Your task to perform on an android device: check google app version Image 0: 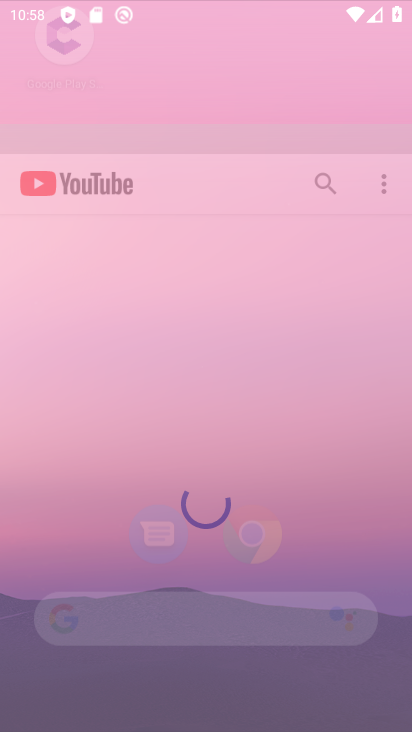
Step 0: drag from (279, 246) to (263, 183)
Your task to perform on an android device: check google app version Image 1: 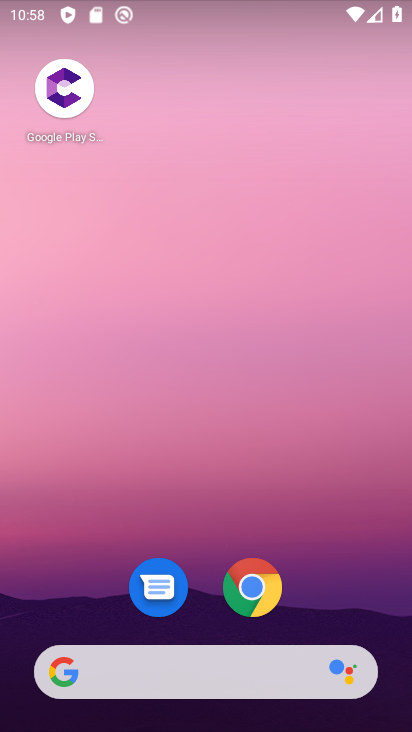
Step 1: drag from (324, 615) to (296, 143)
Your task to perform on an android device: check google app version Image 2: 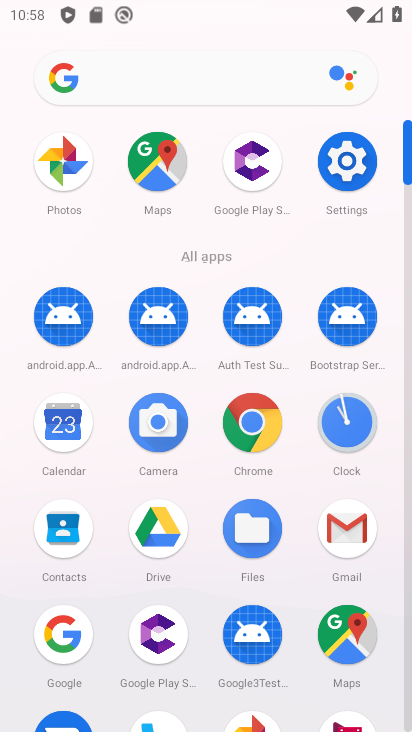
Step 2: click (268, 434)
Your task to perform on an android device: check google app version Image 3: 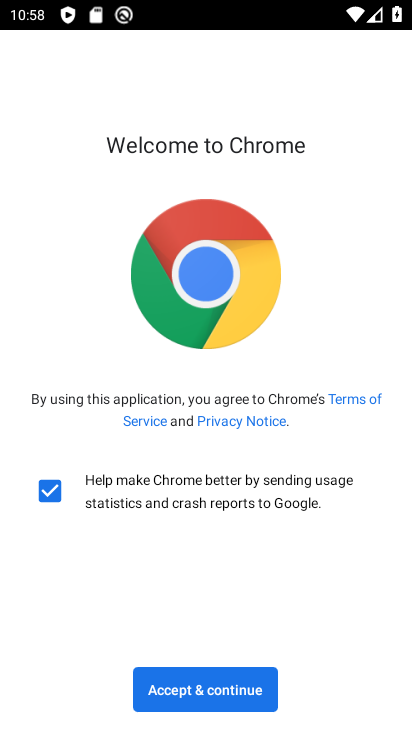
Step 3: click (179, 690)
Your task to perform on an android device: check google app version Image 4: 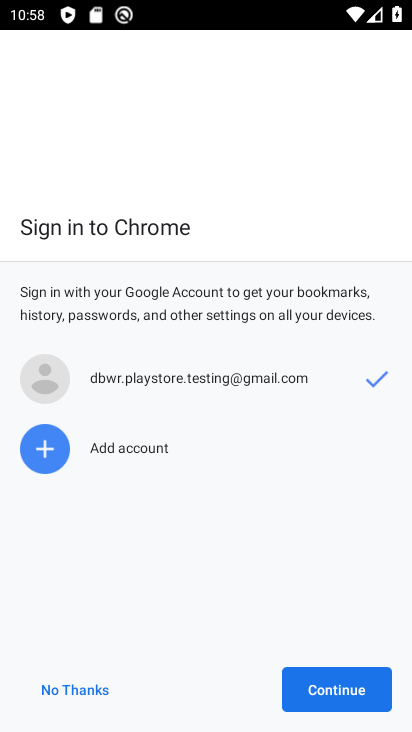
Step 4: click (314, 699)
Your task to perform on an android device: check google app version Image 5: 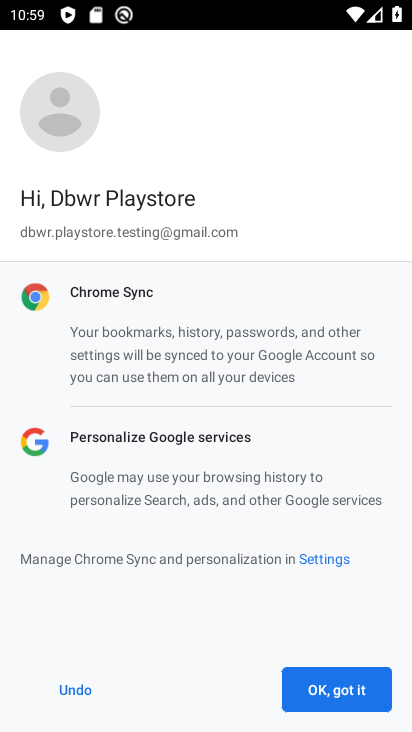
Step 5: click (314, 699)
Your task to perform on an android device: check google app version Image 6: 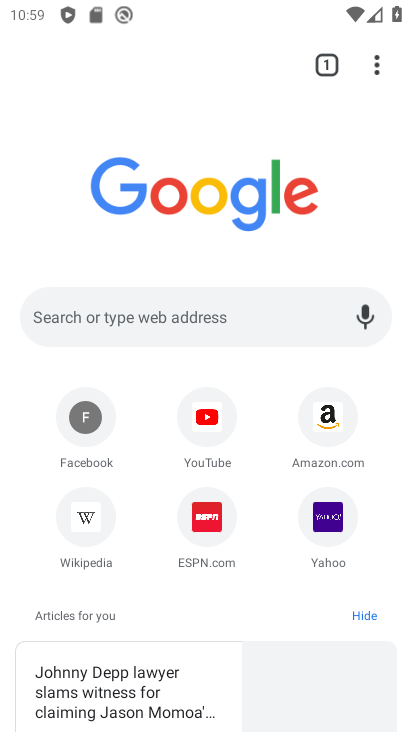
Step 6: click (378, 70)
Your task to perform on an android device: check google app version Image 7: 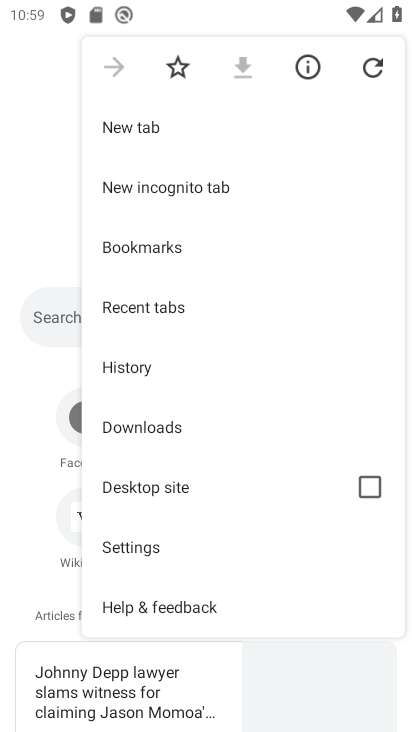
Step 7: click (218, 613)
Your task to perform on an android device: check google app version Image 8: 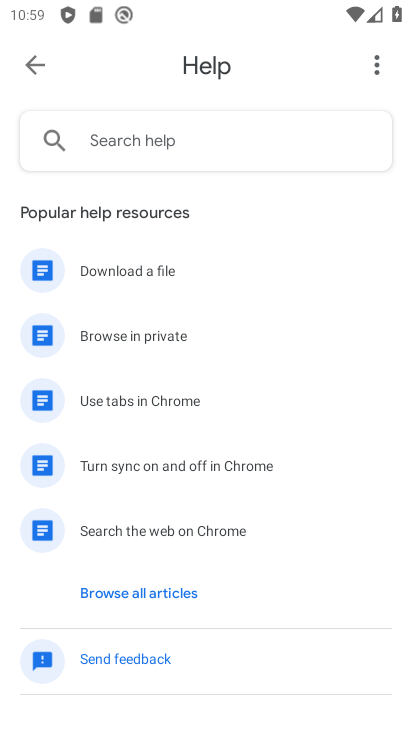
Step 8: click (377, 71)
Your task to perform on an android device: check google app version Image 9: 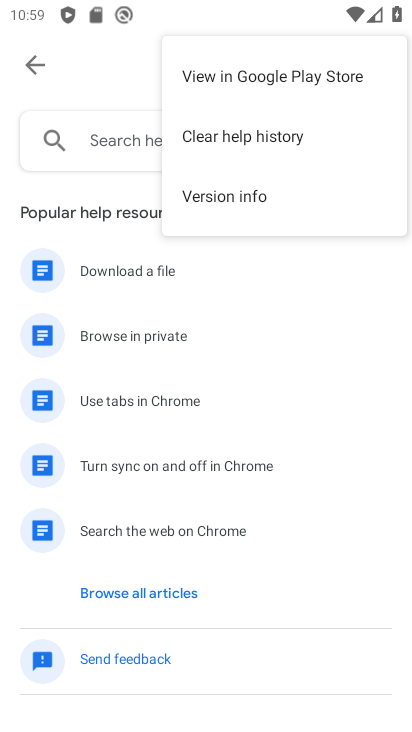
Step 9: click (280, 188)
Your task to perform on an android device: check google app version Image 10: 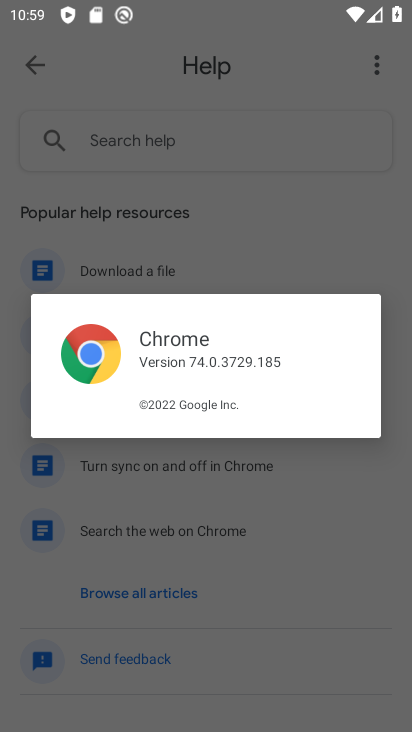
Step 10: task complete